Your task to perform on an android device: Go to Google maps Image 0: 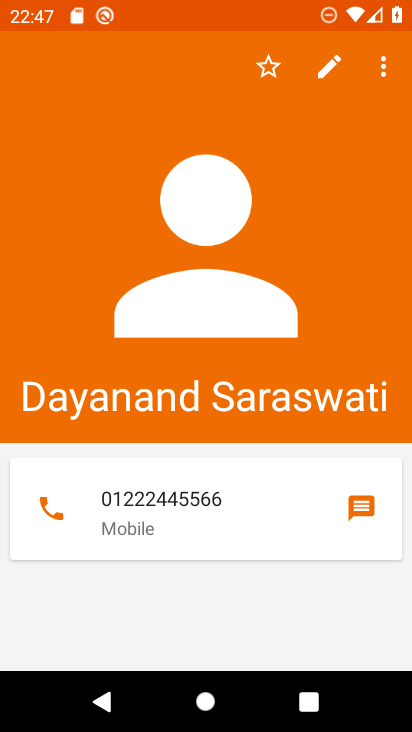
Step 0: press home button
Your task to perform on an android device: Go to Google maps Image 1: 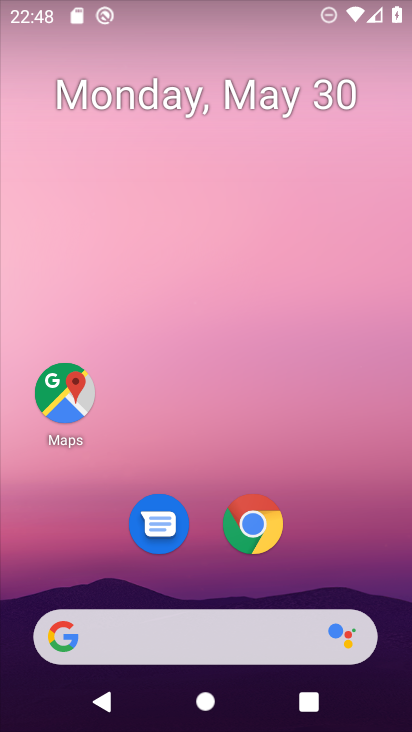
Step 1: click (64, 381)
Your task to perform on an android device: Go to Google maps Image 2: 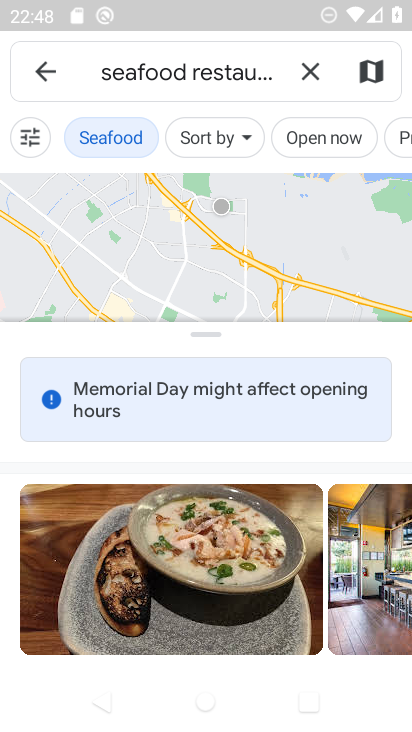
Step 2: click (302, 63)
Your task to perform on an android device: Go to Google maps Image 3: 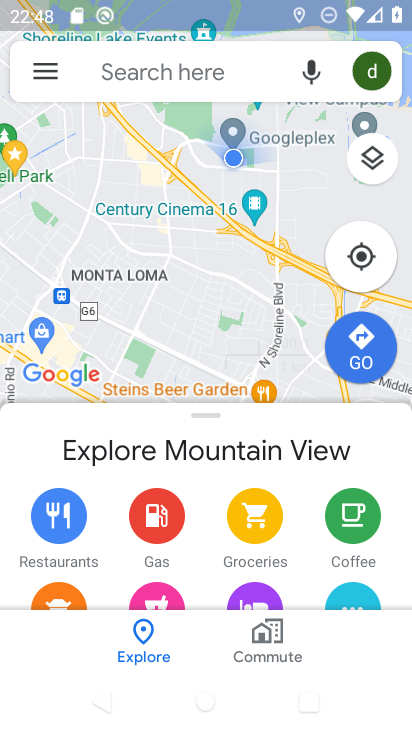
Step 3: task complete